Your task to perform on an android device: Go to ESPN.com Image 0: 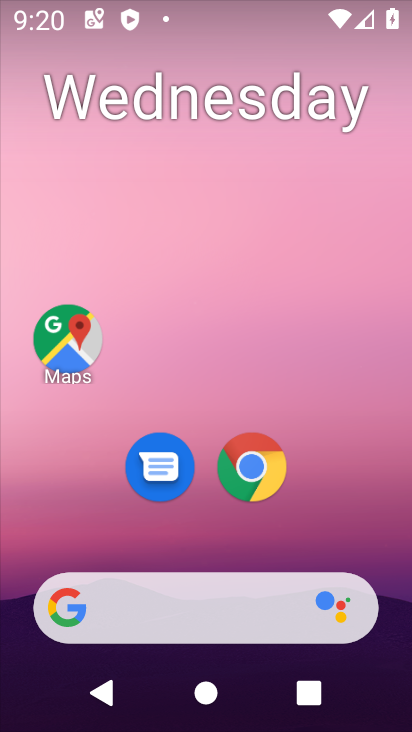
Step 0: click (238, 482)
Your task to perform on an android device: Go to ESPN.com Image 1: 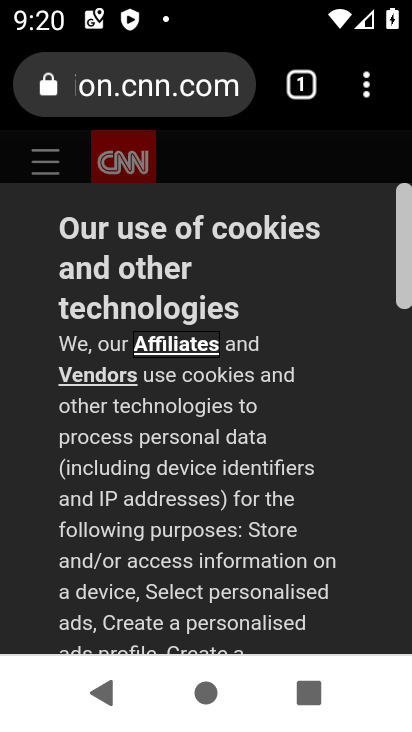
Step 1: click (301, 92)
Your task to perform on an android device: Go to ESPN.com Image 2: 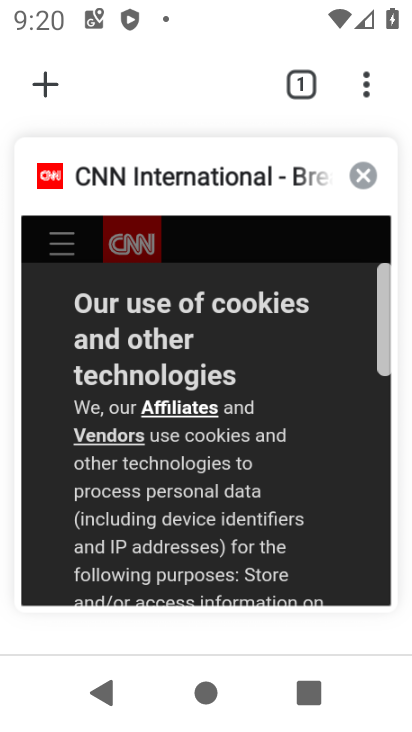
Step 2: click (29, 79)
Your task to perform on an android device: Go to ESPN.com Image 3: 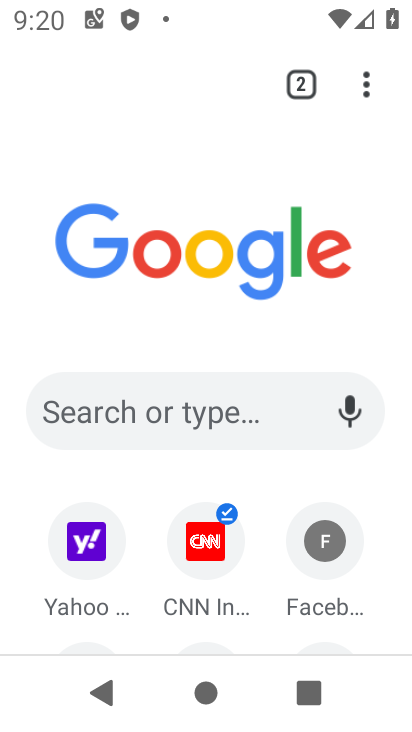
Step 3: drag from (264, 582) to (273, 216)
Your task to perform on an android device: Go to ESPN.com Image 4: 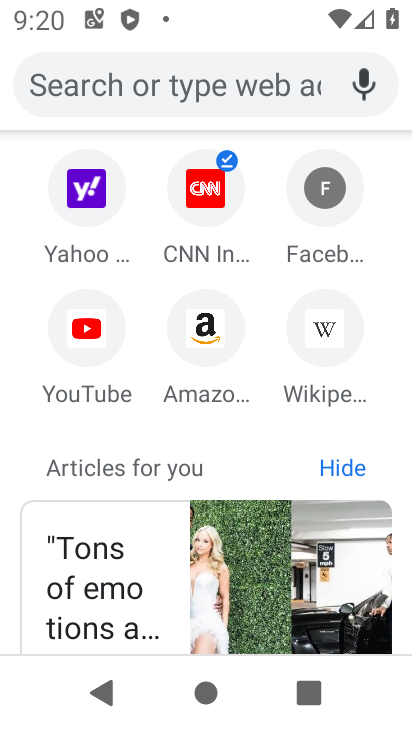
Step 4: click (210, 92)
Your task to perform on an android device: Go to ESPN.com Image 5: 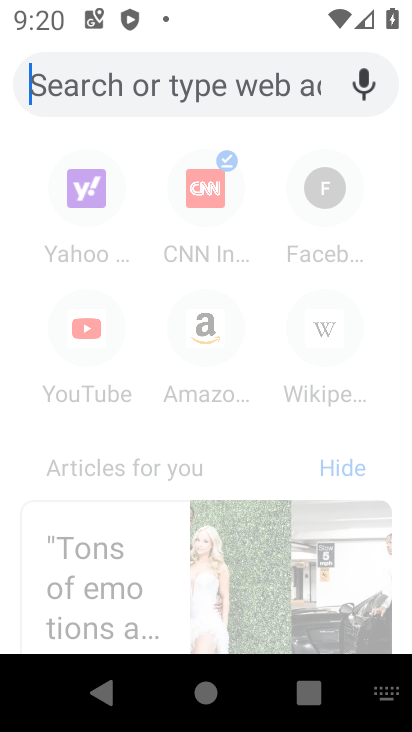
Step 5: type "ESPN"
Your task to perform on an android device: Go to ESPN.com Image 6: 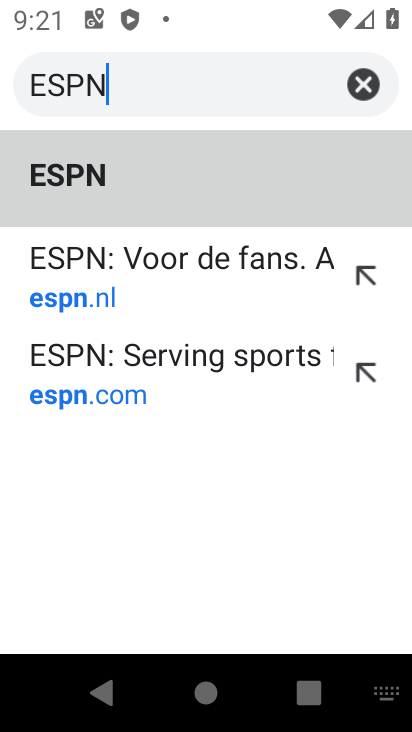
Step 6: click (210, 370)
Your task to perform on an android device: Go to ESPN.com Image 7: 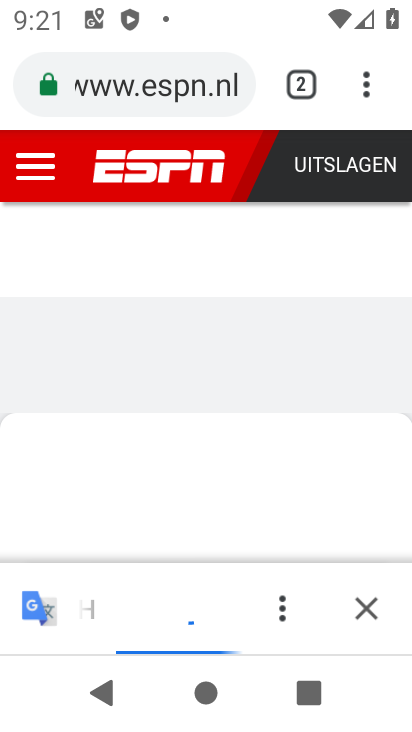
Step 7: task complete